Your task to perform on an android device: Open Chrome and go to the settings page Image 0: 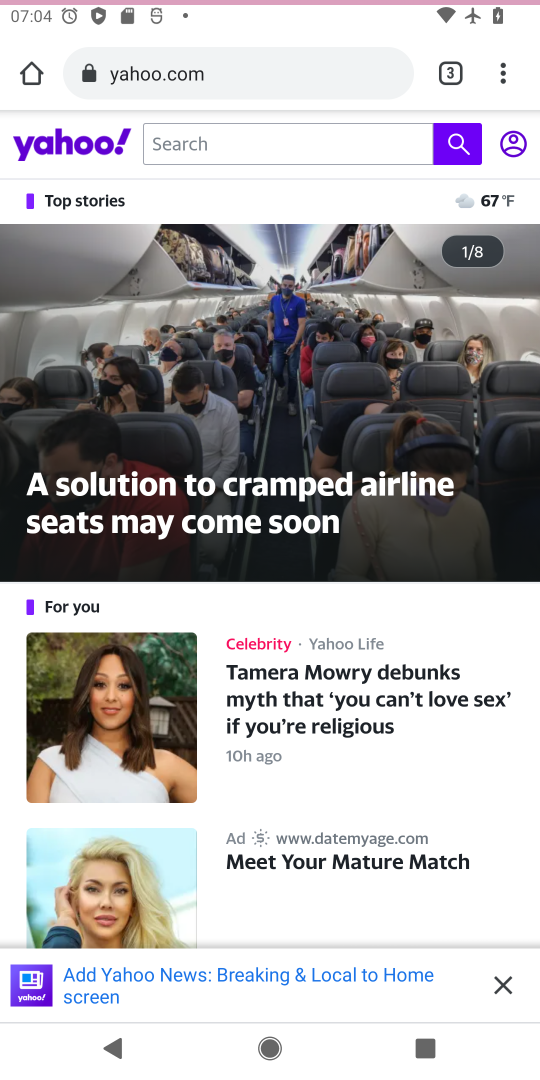
Step 0: press home button
Your task to perform on an android device: Open Chrome and go to the settings page Image 1: 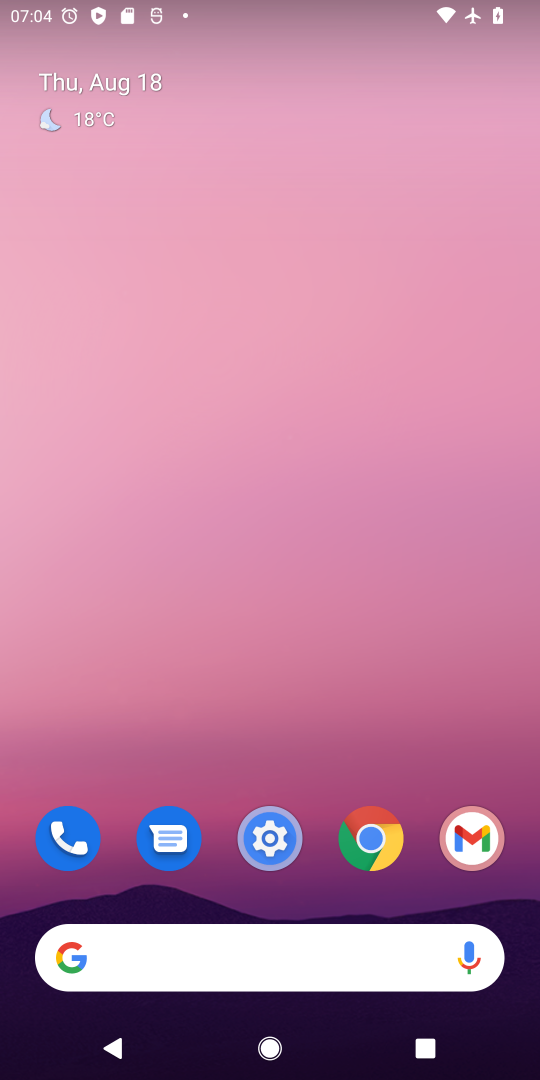
Step 1: click (385, 840)
Your task to perform on an android device: Open Chrome and go to the settings page Image 2: 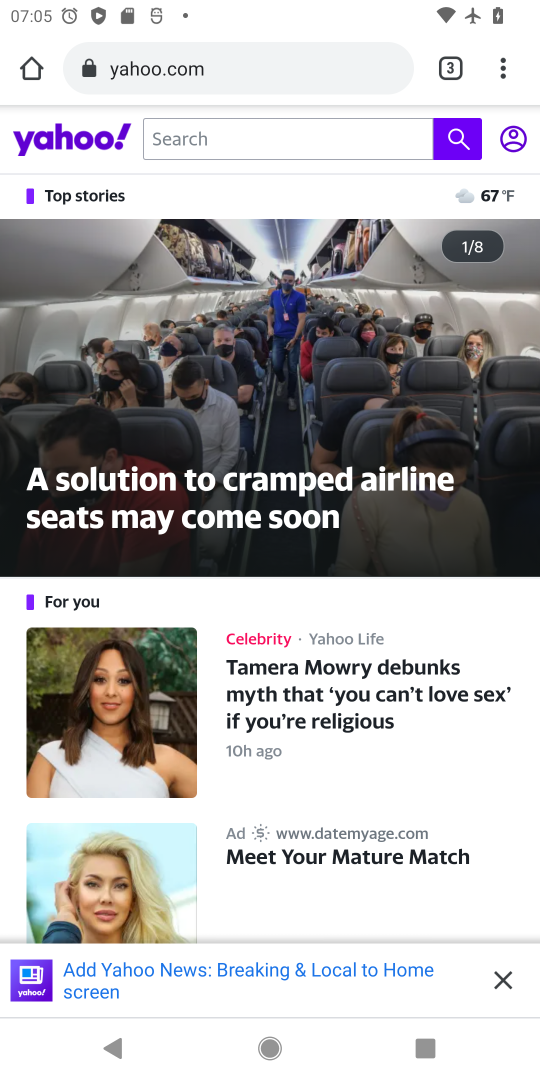
Step 2: task complete